Your task to perform on an android device: change notification settings in the gmail app Image 0: 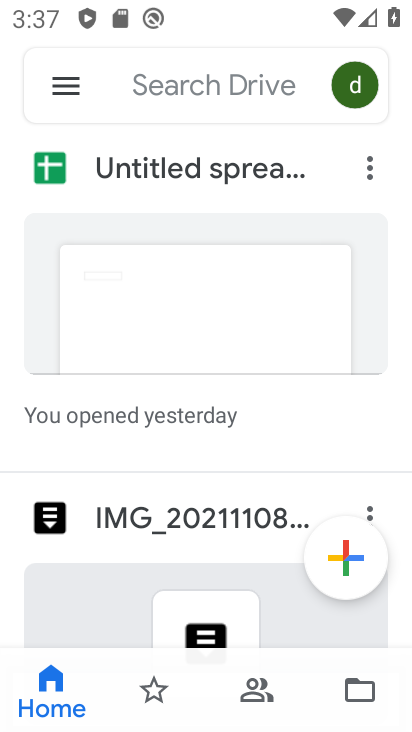
Step 0: press home button
Your task to perform on an android device: change notification settings in the gmail app Image 1: 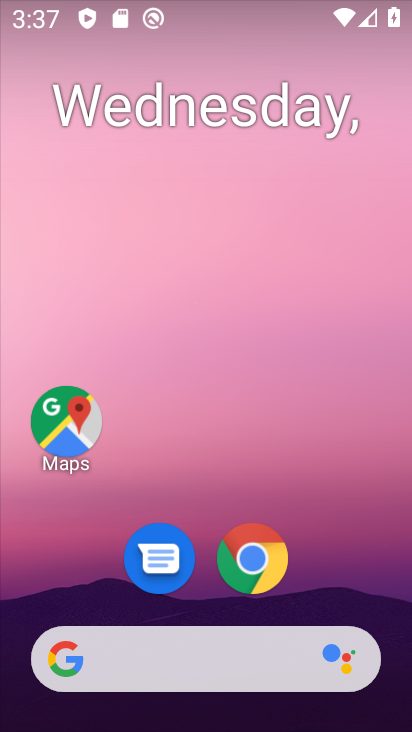
Step 1: drag from (209, 693) to (252, 3)
Your task to perform on an android device: change notification settings in the gmail app Image 2: 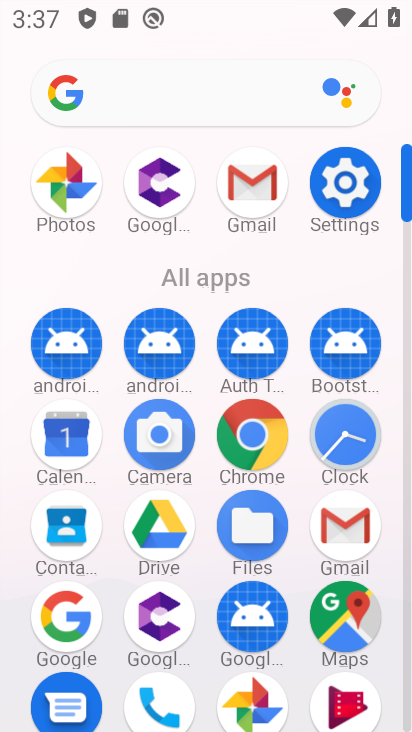
Step 2: click (249, 176)
Your task to perform on an android device: change notification settings in the gmail app Image 3: 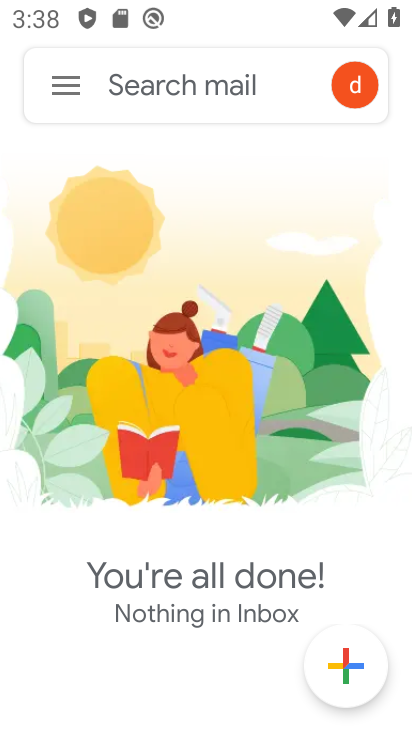
Step 3: click (56, 75)
Your task to perform on an android device: change notification settings in the gmail app Image 4: 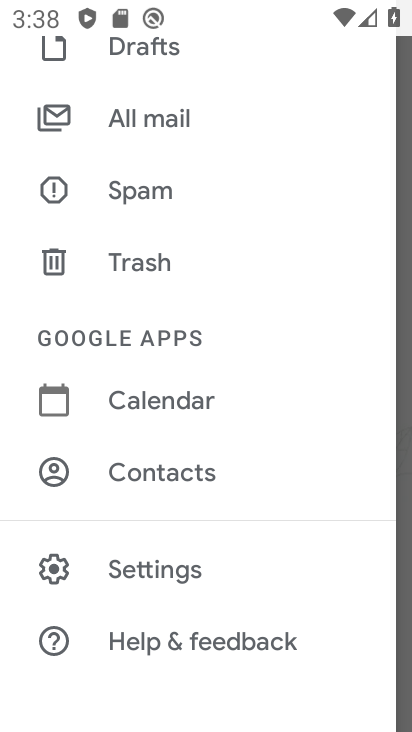
Step 4: click (148, 562)
Your task to perform on an android device: change notification settings in the gmail app Image 5: 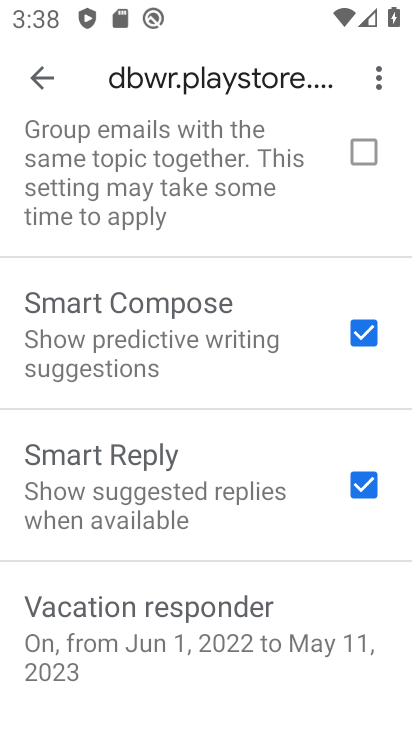
Step 5: drag from (130, 431) to (139, 684)
Your task to perform on an android device: change notification settings in the gmail app Image 6: 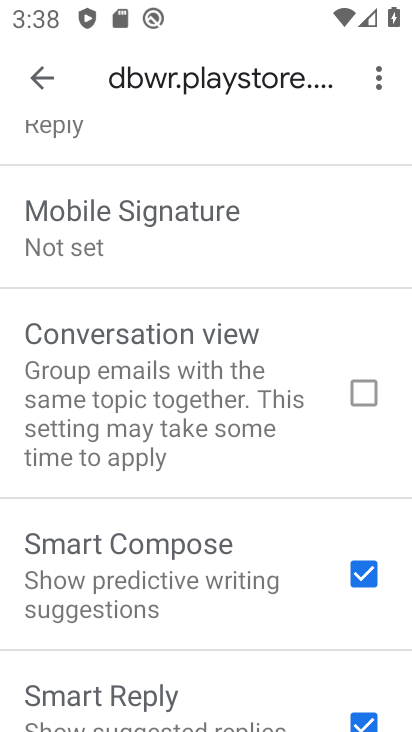
Step 6: drag from (107, 144) to (92, 528)
Your task to perform on an android device: change notification settings in the gmail app Image 7: 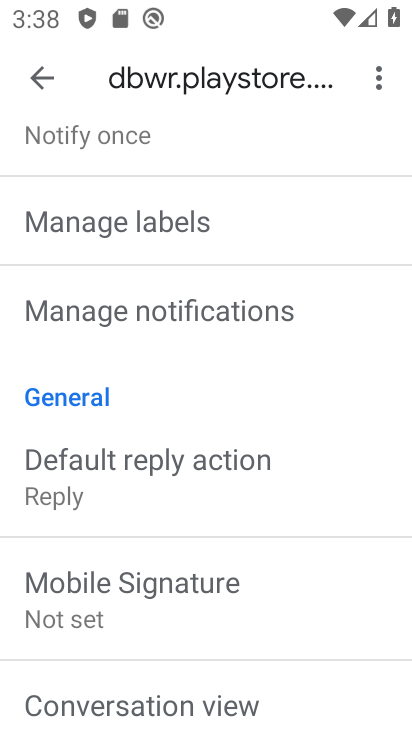
Step 7: drag from (118, 270) to (137, 471)
Your task to perform on an android device: change notification settings in the gmail app Image 8: 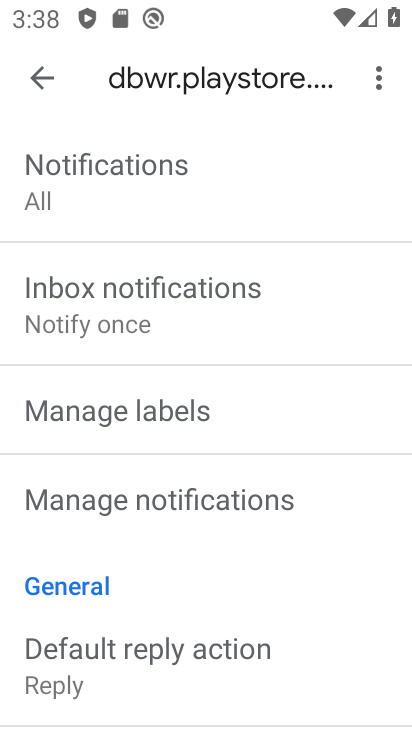
Step 8: click (87, 193)
Your task to perform on an android device: change notification settings in the gmail app Image 9: 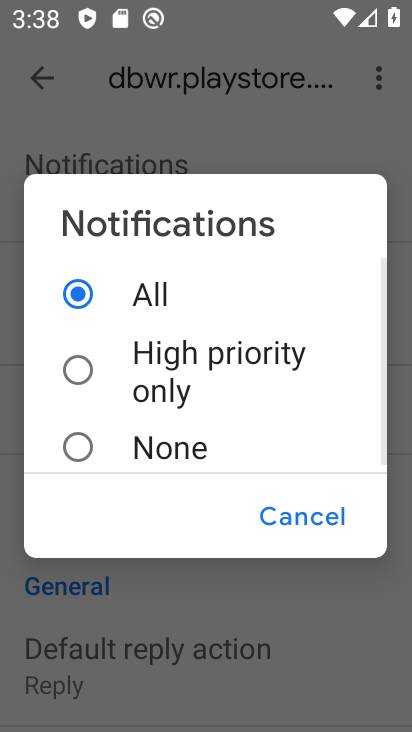
Step 9: click (145, 368)
Your task to perform on an android device: change notification settings in the gmail app Image 10: 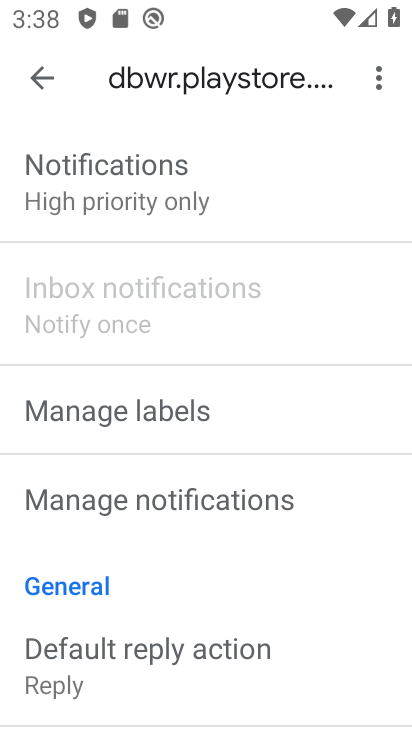
Step 10: click (206, 197)
Your task to perform on an android device: change notification settings in the gmail app Image 11: 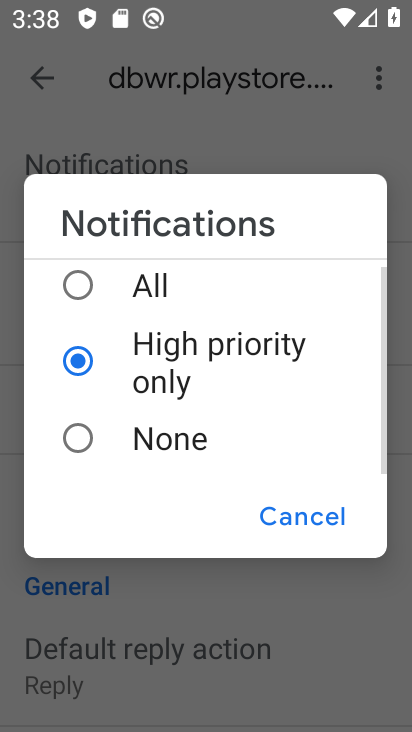
Step 11: task complete